Your task to perform on an android device: Open ESPN.com Image 0: 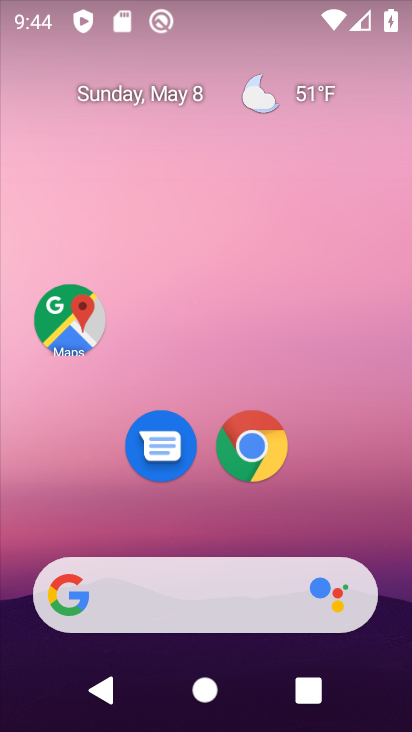
Step 0: press home button
Your task to perform on an android device: Open ESPN.com Image 1: 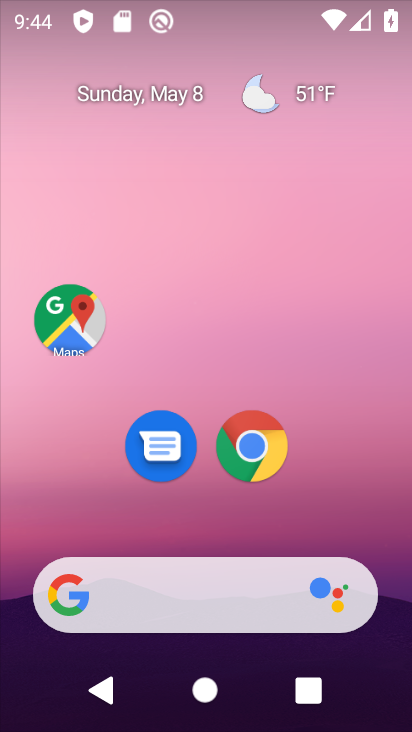
Step 1: click (246, 447)
Your task to perform on an android device: Open ESPN.com Image 2: 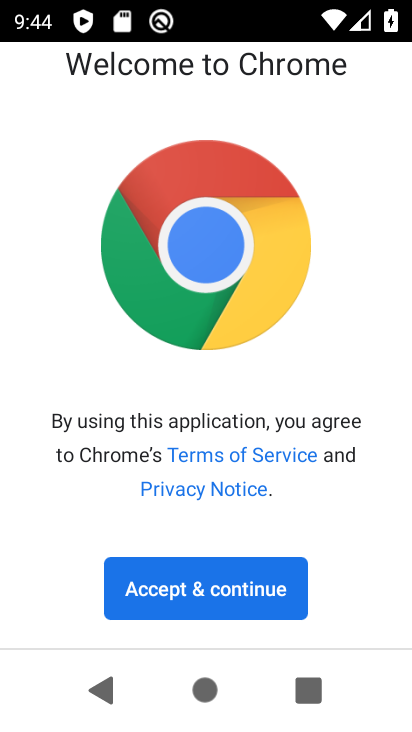
Step 2: click (202, 585)
Your task to perform on an android device: Open ESPN.com Image 3: 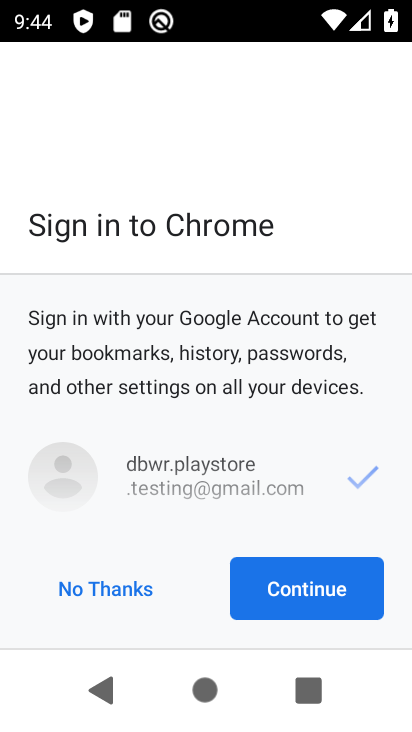
Step 3: click (301, 582)
Your task to perform on an android device: Open ESPN.com Image 4: 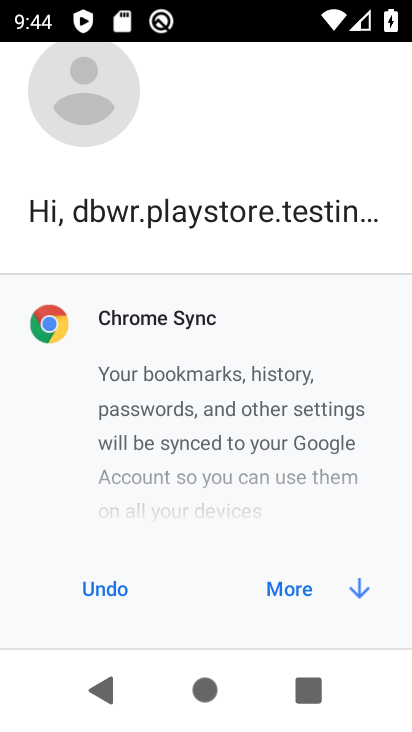
Step 4: click (301, 574)
Your task to perform on an android device: Open ESPN.com Image 5: 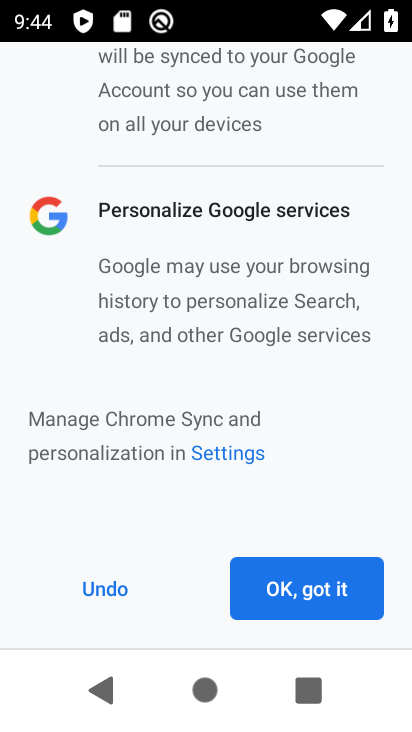
Step 5: click (305, 578)
Your task to perform on an android device: Open ESPN.com Image 6: 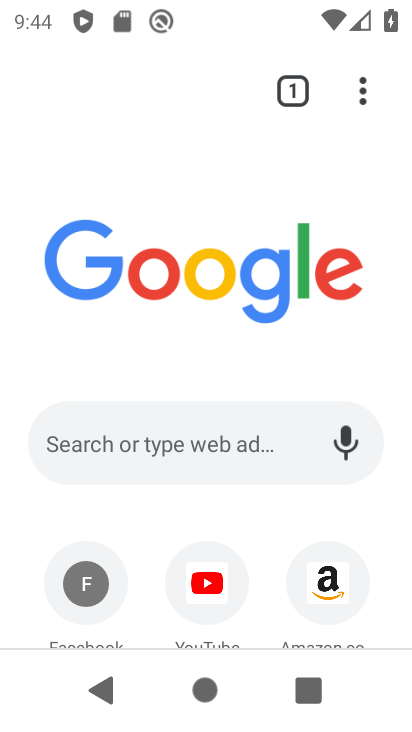
Step 6: drag from (260, 538) to (259, 194)
Your task to perform on an android device: Open ESPN.com Image 7: 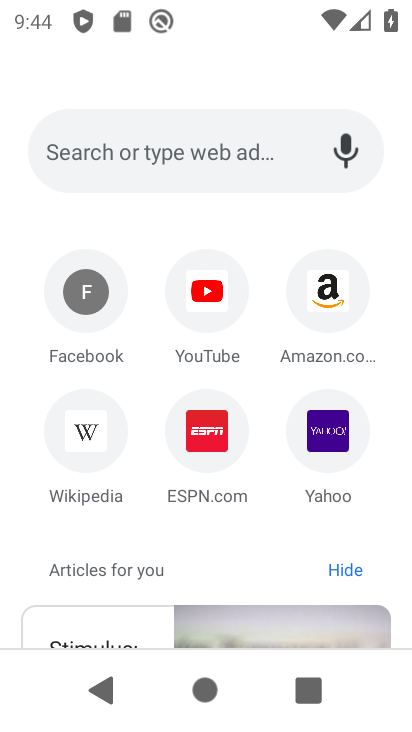
Step 7: drag from (237, 536) to (238, 223)
Your task to perform on an android device: Open ESPN.com Image 8: 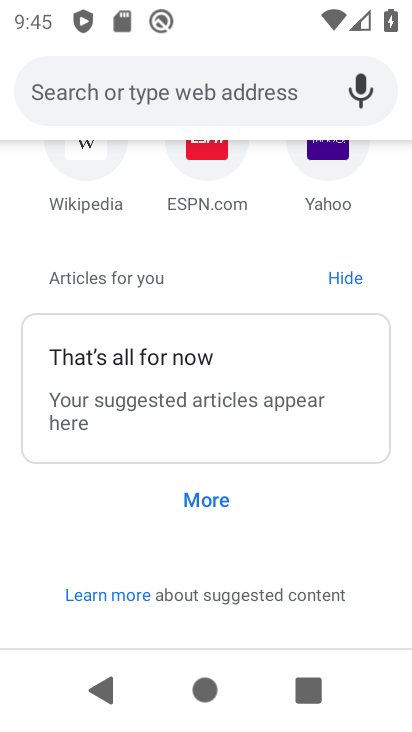
Step 8: drag from (178, 517) to (158, 201)
Your task to perform on an android device: Open ESPN.com Image 9: 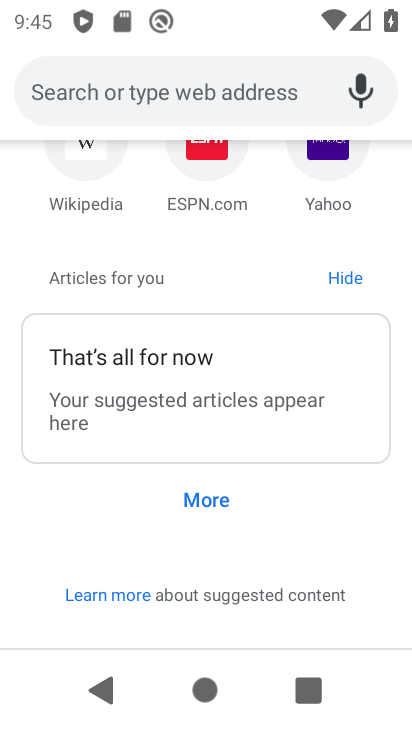
Step 9: click (178, 93)
Your task to perform on an android device: Open ESPN.com Image 10: 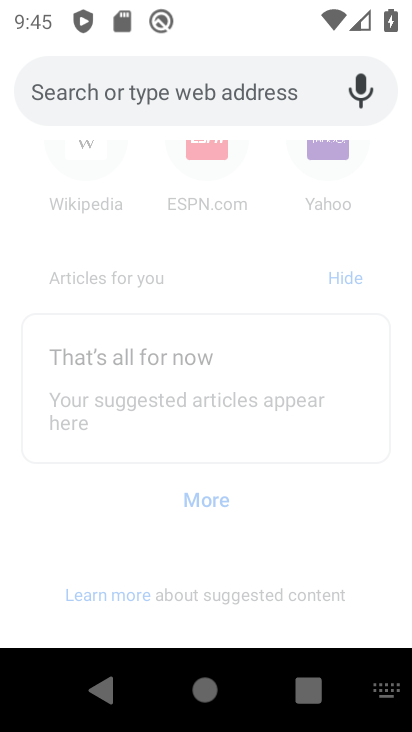
Step 10: type "espn"
Your task to perform on an android device: Open ESPN.com Image 11: 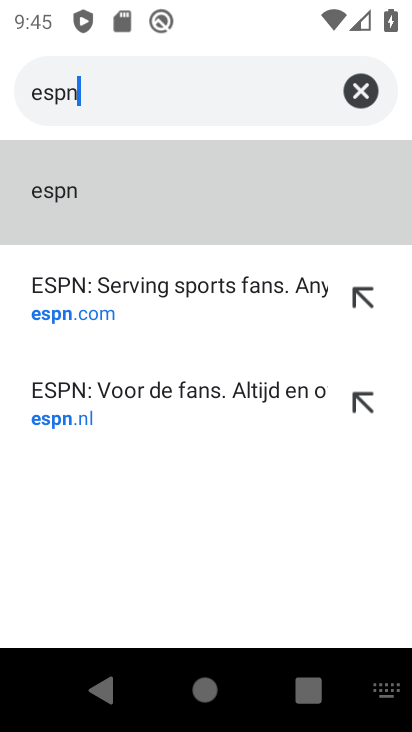
Step 11: click (258, 304)
Your task to perform on an android device: Open ESPN.com Image 12: 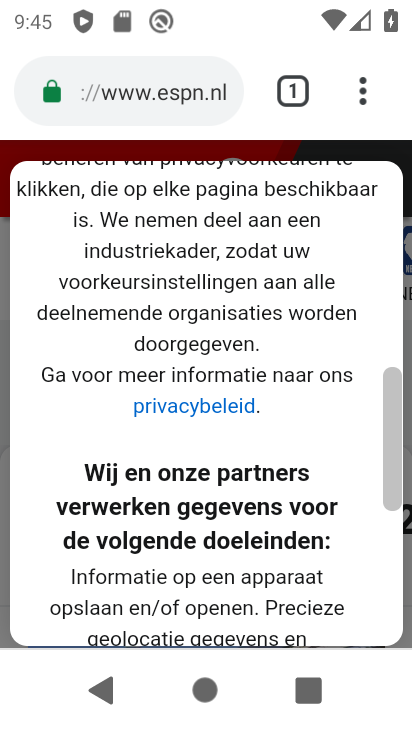
Step 12: drag from (239, 588) to (203, 214)
Your task to perform on an android device: Open ESPN.com Image 13: 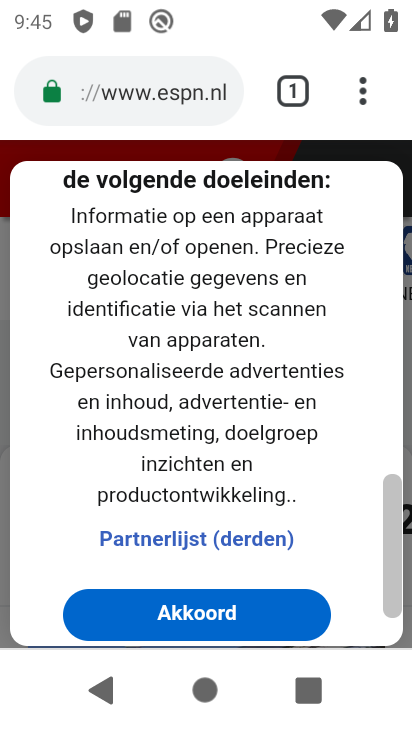
Step 13: click (204, 611)
Your task to perform on an android device: Open ESPN.com Image 14: 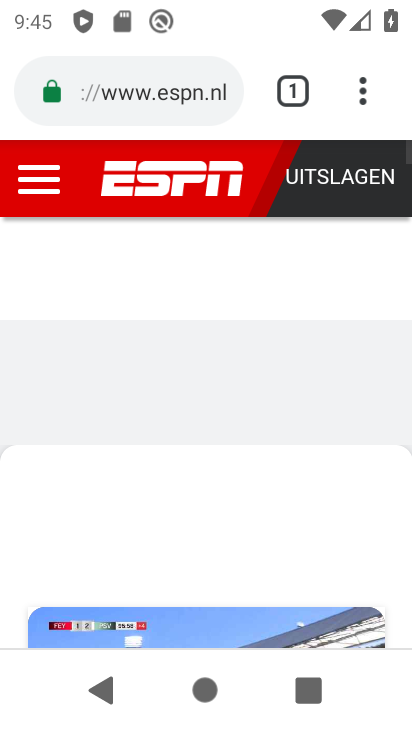
Step 14: task complete